Your task to perform on an android device: Is it going to rain this weekend? Image 0: 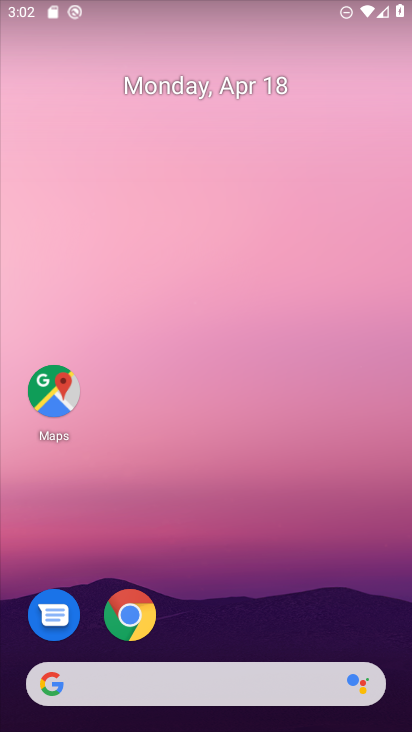
Step 0: drag from (329, 589) to (301, 13)
Your task to perform on an android device: Is it going to rain this weekend? Image 1: 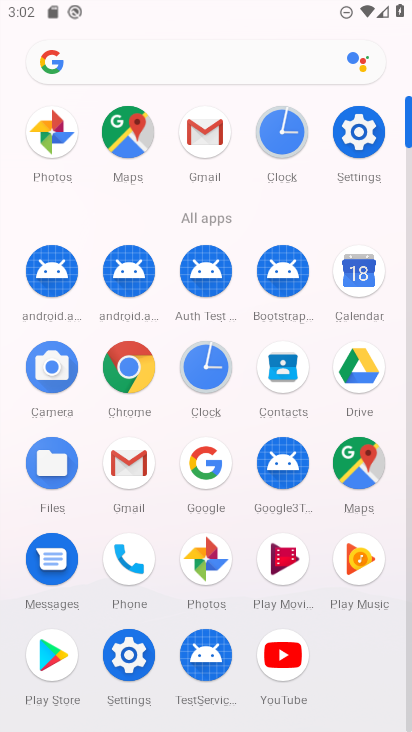
Step 1: click (127, 380)
Your task to perform on an android device: Is it going to rain this weekend? Image 2: 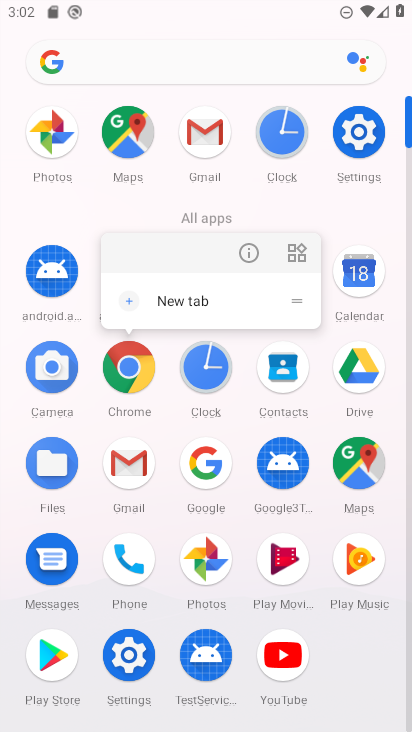
Step 2: click (127, 380)
Your task to perform on an android device: Is it going to rain this weekend? Image 3: 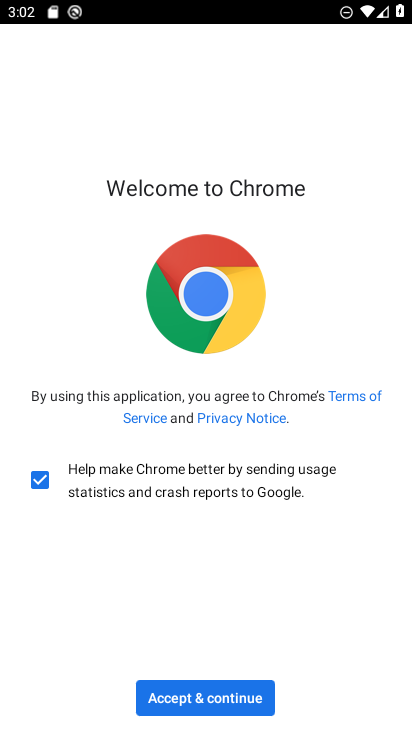
Step 3: click (231, 688)
Your task to perform on an android device: Is it going to rain this weekend? Image 4: 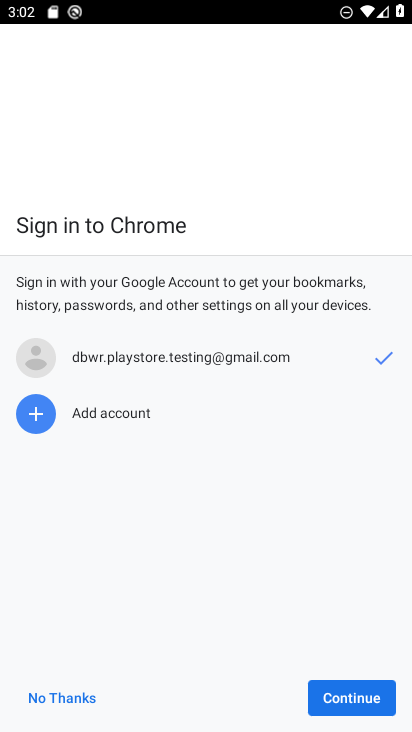
Step 4: click (373, 699)
Your task to perform on an android device: Is it going to rain this weekend? Image 5: 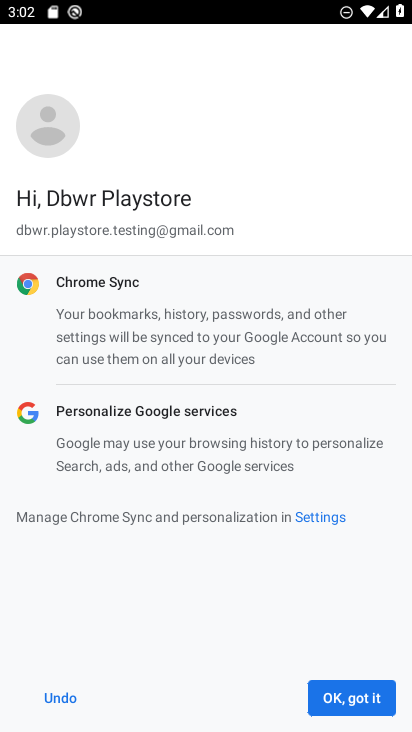
Step 5: click (371, 699)
Your task to perform on an android device: Is it going to rain this weekend? Image 6: 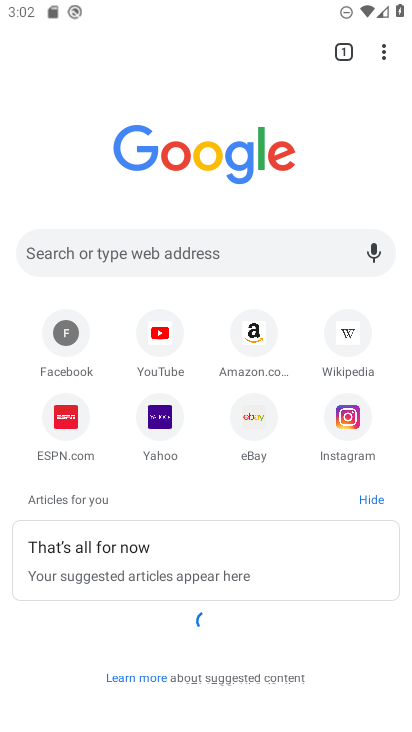
Step 6: click (219, 262)
Your task to perform on an android device: Is it going to rain this weekend? Image 7: 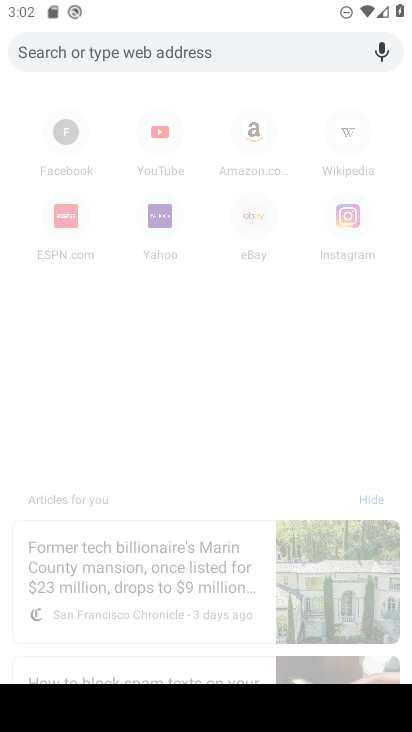
Step 7: type "wheather"
Your task to perform on an android device: Is it going to rain this weekend? Image 8: 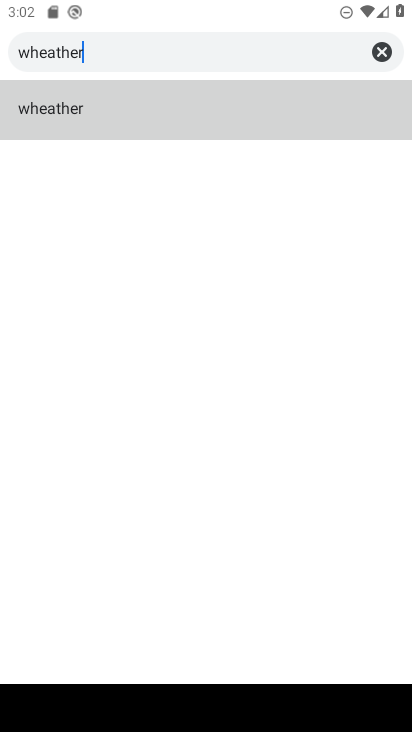
Step 8: type ""
Your task to perform on an android device: Is it going to rain this weekend? Image 9: 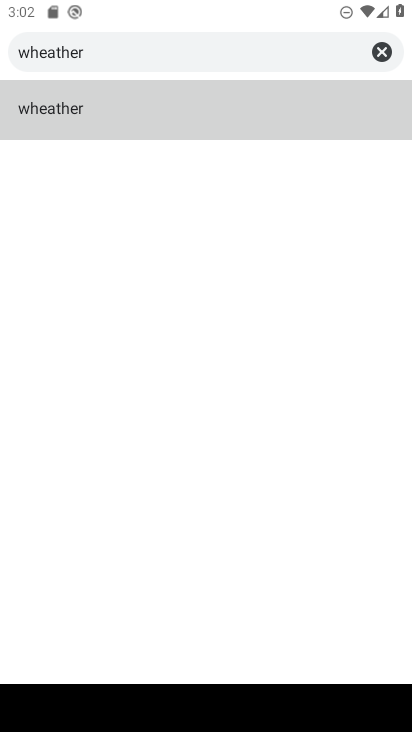
Step 9: click (250, 110)
Your task to perform on an android device: Is it going to rain this weekend? Image 10: 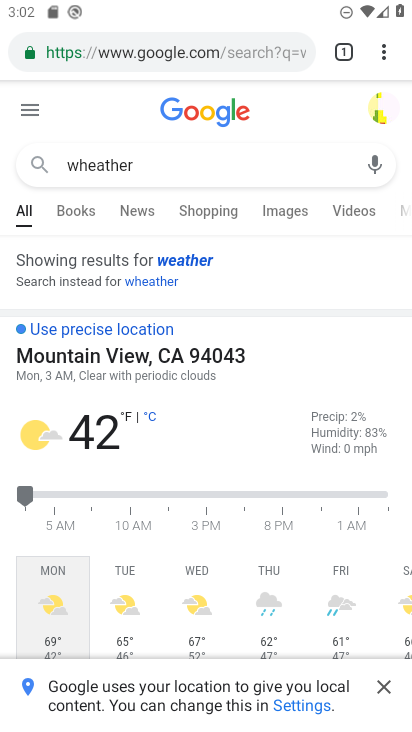
Step 10: task complete